Your task to perform on an android device: refresh tabs in the chrome app Image 0: 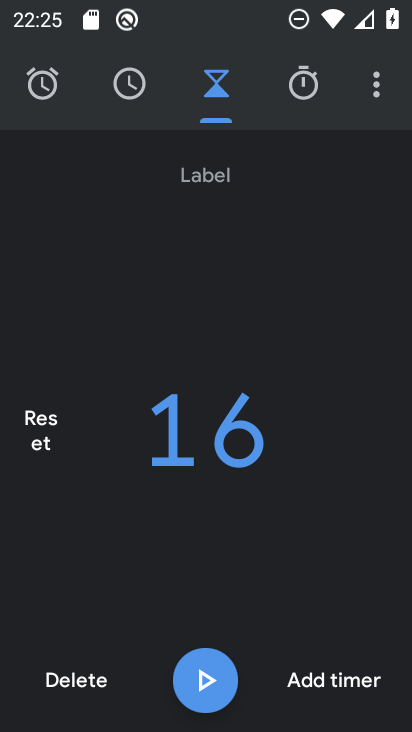
Step 0: press home button
Your task to perform on an android device: refresh tabs in the chrome app Image 1: 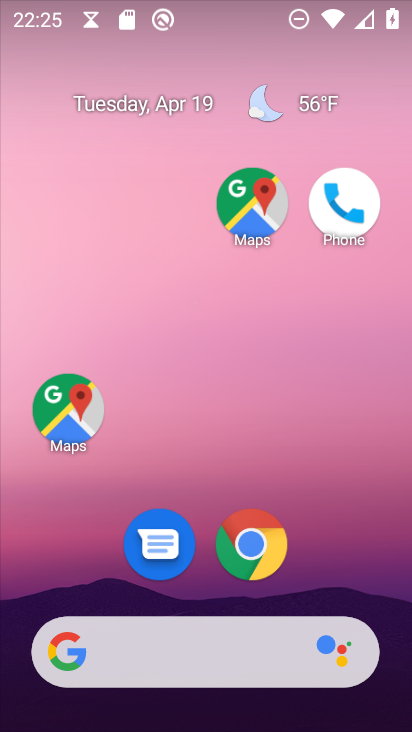
Step 1: drag from (182, 652) to (344, 147)
Your task to perform on an android device: refresh tabs in the chrome app Image 2: 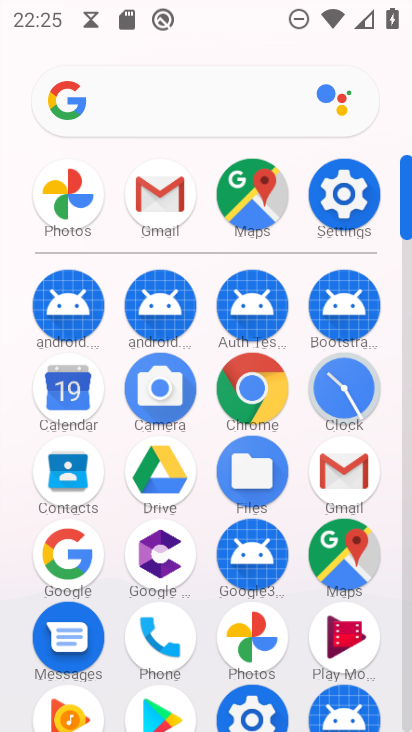
Step 2: click (265, 400)
Your task to perform on an android device: refresh tabs in the chrome app Image 3: 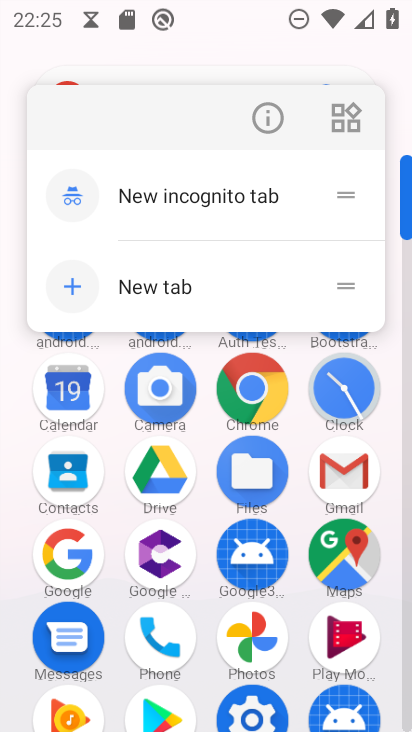
Step 3: click (258, 392)
Your task to perform on an android device: refresh tabs in the chrome app Image 4: 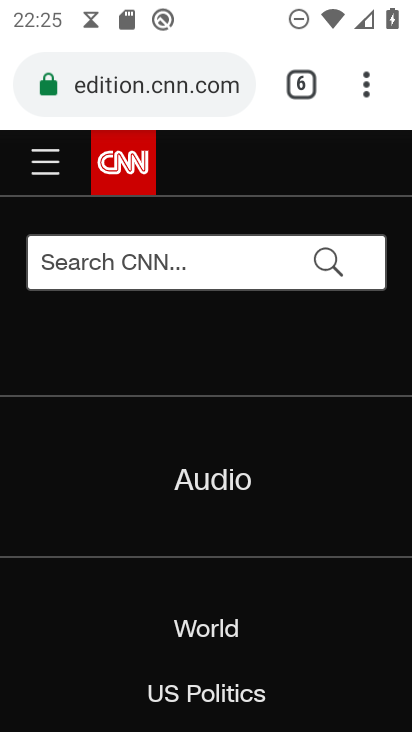
Step 4: click (367, 94)
Your task to perform on an android device: refresh tabs in the chrome app Image 5: 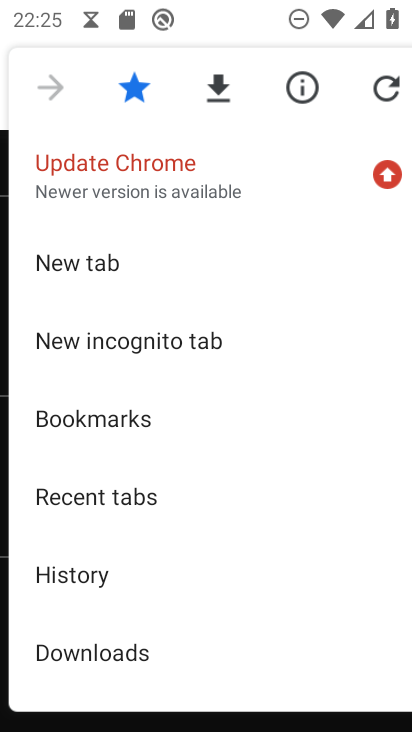
Step 5: click (375, 91)
Your task to perform on an android device: refresh tabs in the chrome app Image 6: 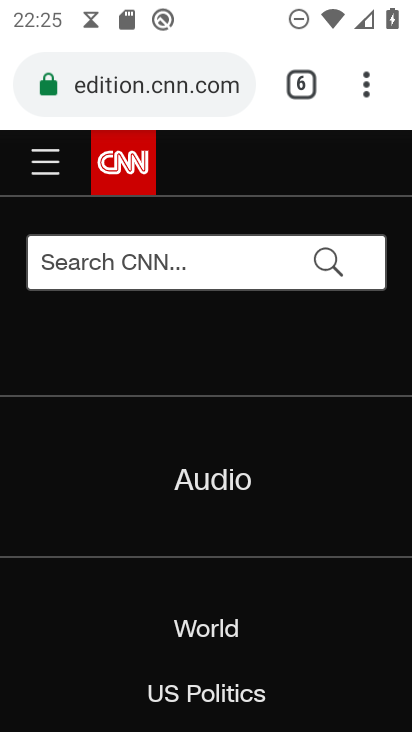
Step 6: task complete